Your task to perform on an android device: turn on javascript in the chrome app Image 0: 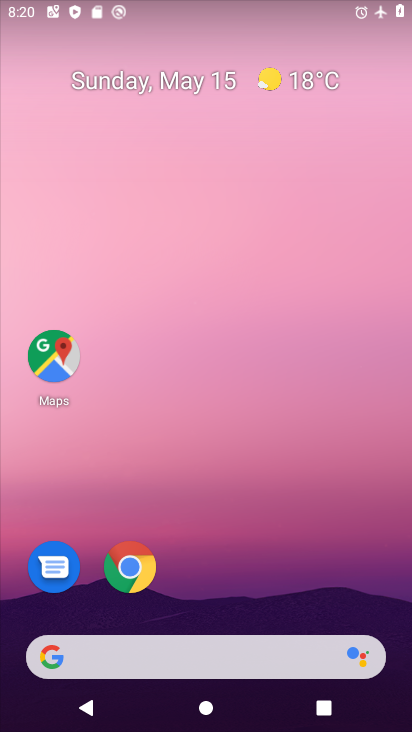
Step 0: click (131, 585)
Your task to perform on an android device: turn on javascript in the chrome app Image 1: 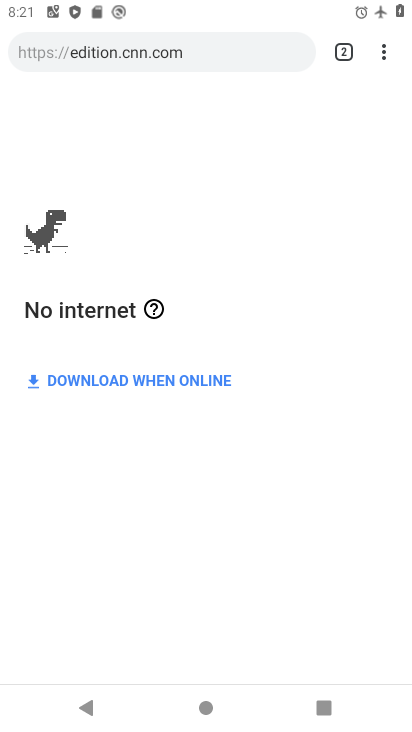
Step 1: press home button
Your task to perform on an android device: turn on javascript in the chrome app Image 2: 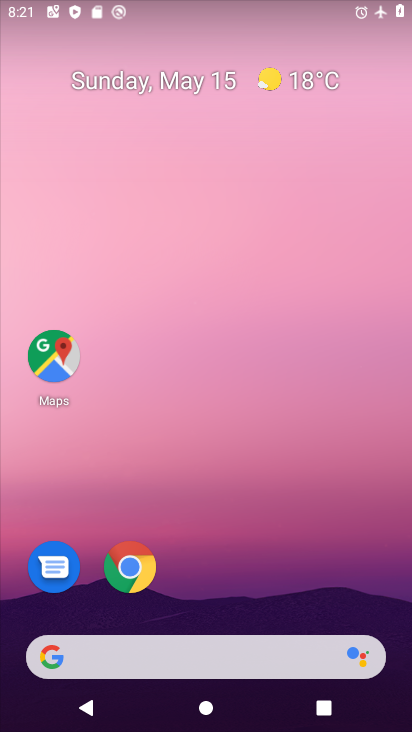
Step 2: click (143, 579)
Your task to perform on an android device: turn on javascript in the chrome app Image 3: 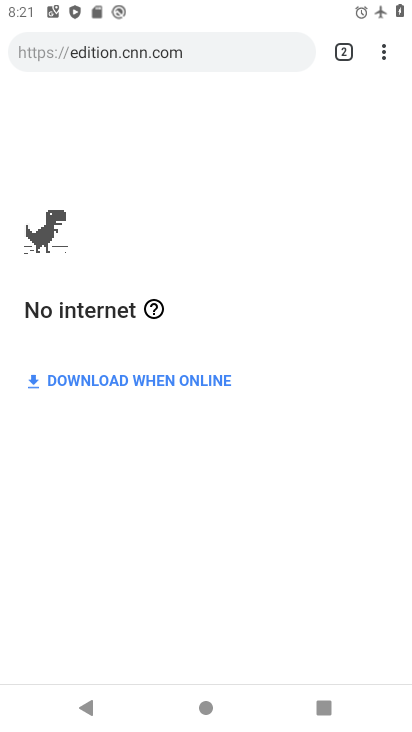
Step 3: click (382, 52)
Your task to perform on an android device: turn on javascript in the chrome app Image 4: 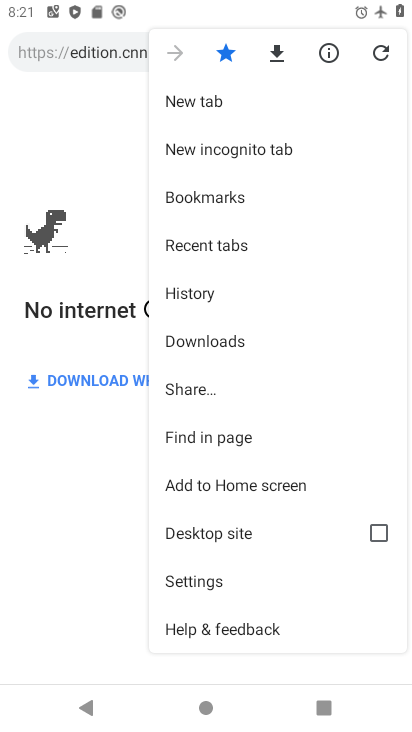
Step 4: click (216, 589)
Your task to perform on an android device: turn on javascript in the chrome app Image 5: 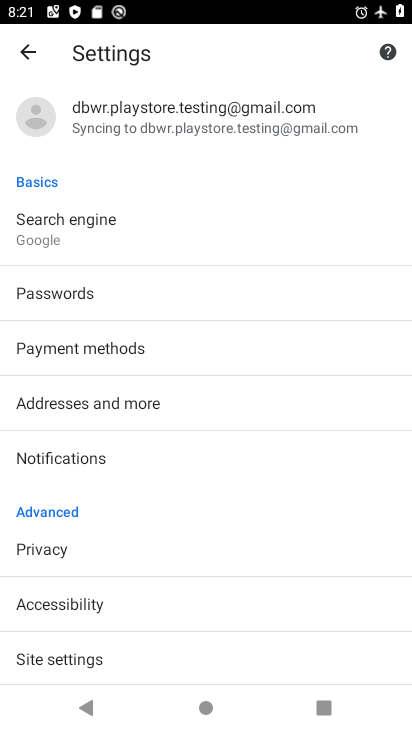
Step 5: click (130, 654)
Your task to perform on an android device: turn on javascript in the chrome app Image 6: 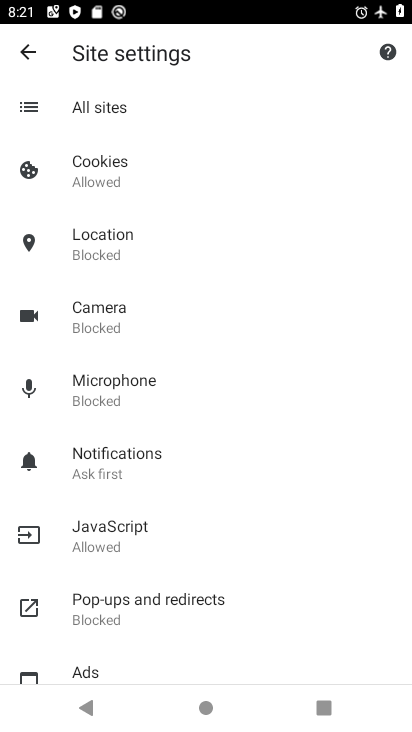
Step 6: click (131, 528)
Your task to perform on an android device: turn on javascript in the chrome app Image 7: 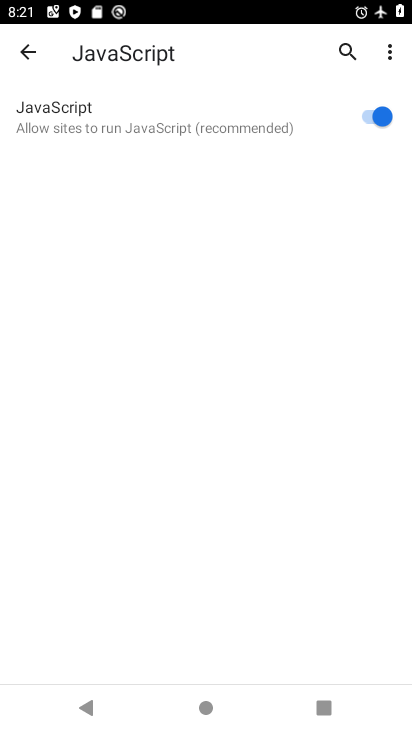
Step 7: task complete